Your task to perform on an android device: Open notification settings Image 0: 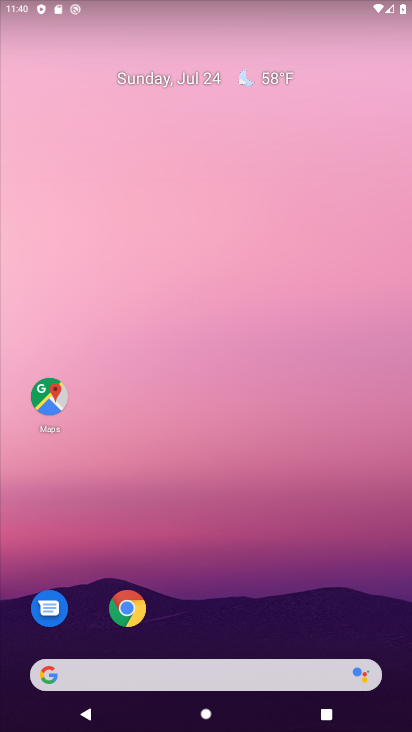
Step 0: drag from (177, 674) to (173, 110)
Your task to perform on an android device: Open notification settings Image 1: 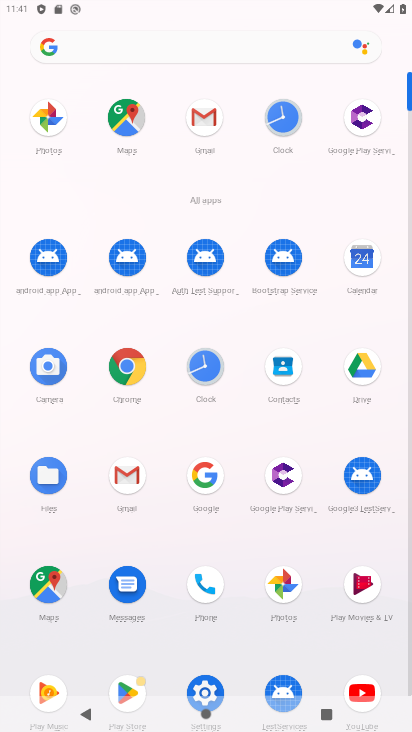
Step 1: click (207, 681)
Your task to perform on an android device: Open notification settings Image 2: 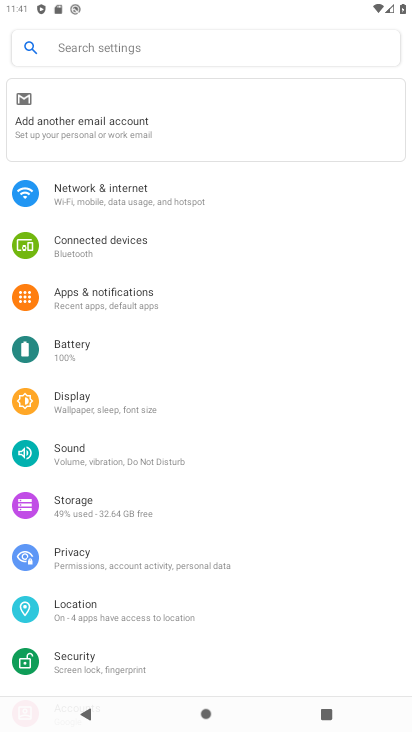
Step 2: click (92, 306)
Your task to perform on an android device: Open notification settings Image 3: 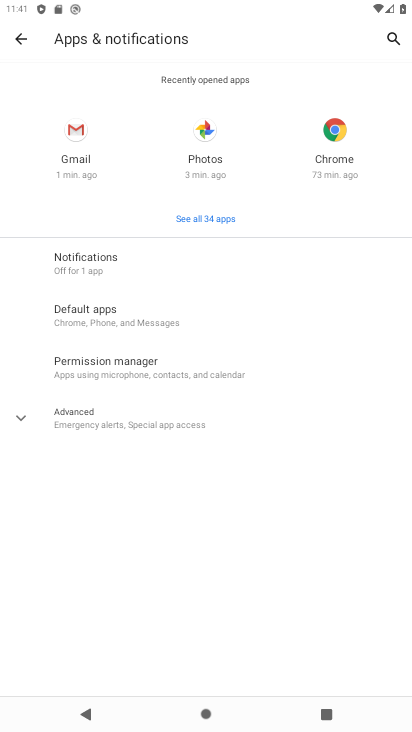
Step 3: task complete